Your task to perform on an android device: toggle airplane mode Image 0: 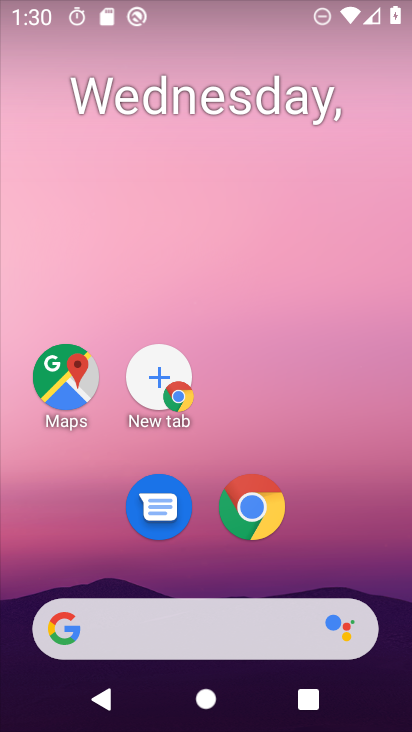
Step 0: drag from (379, 405) to (411, 150)
Your task to perform on an android device: toggle airplane mode Image 1: 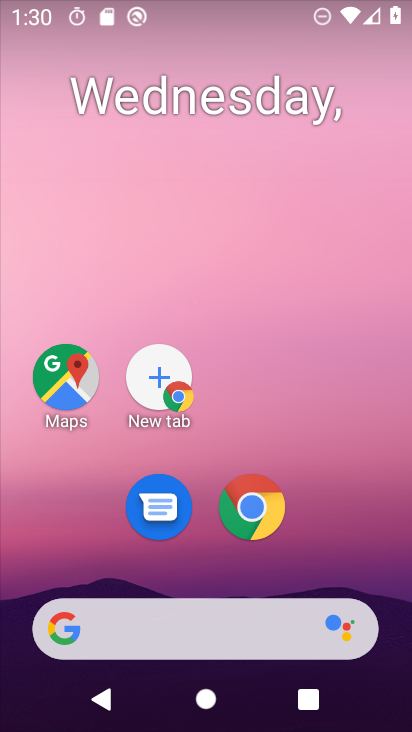
Step 1: drag from (395, 426) to (408, 217)
Your task to perform on an android device: toggle airplane mode Image 2: 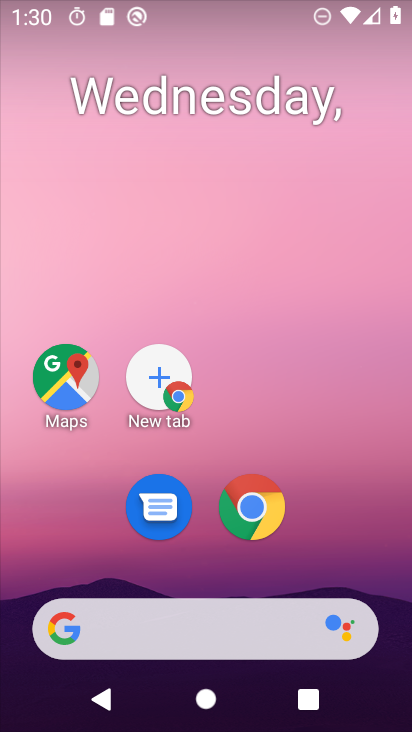
Step 2: drag from (356, 503) to (408, 139)
Your task to perform on an android device: toggle airplane mode Image 3: 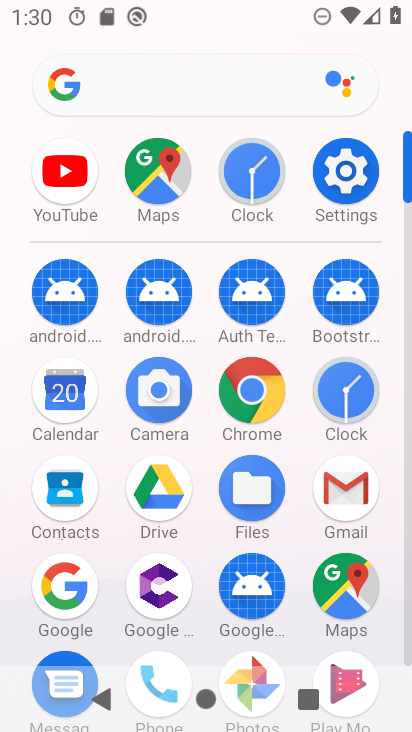
Step 3: click (353, 177)
Your task to perform on an android device: toggle airplane mode Image 4: 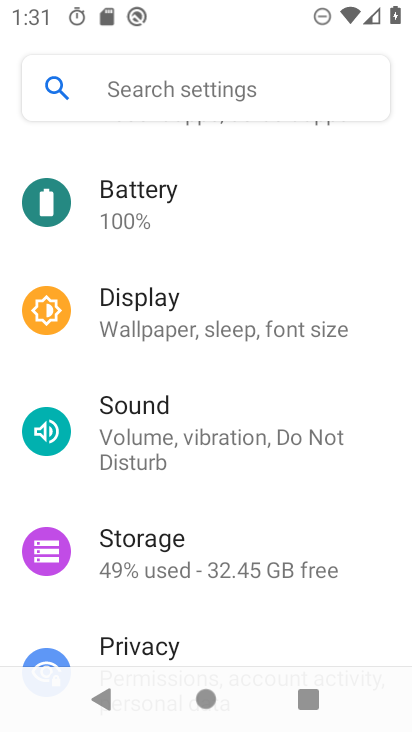
Step 4: drag from (236, 311) to (160, 555)
Your task to perform on an android device: toggle airplane mode Image 5: 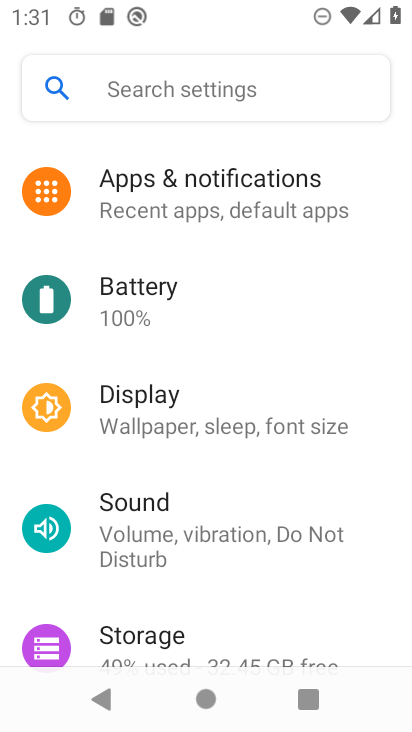
Step 5: drag from (228, 175) to (137, 543)
Your task to perform on an android device: toggle airplane mode Image 6: 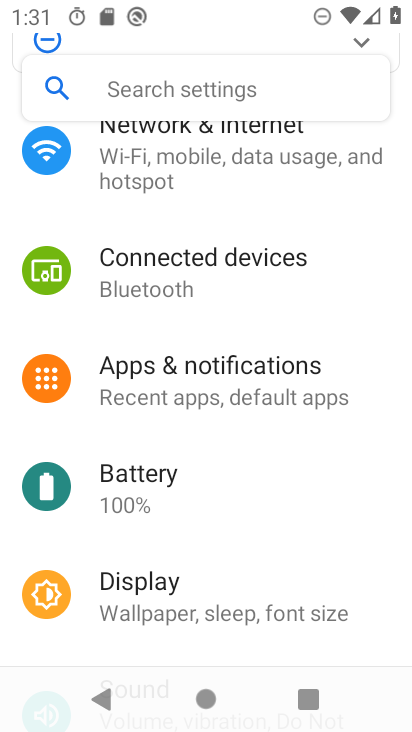
Step 6: drag from (221, 236) to (177, 574)
Your task to perform on an android device: toggle airplane mode Image 7: 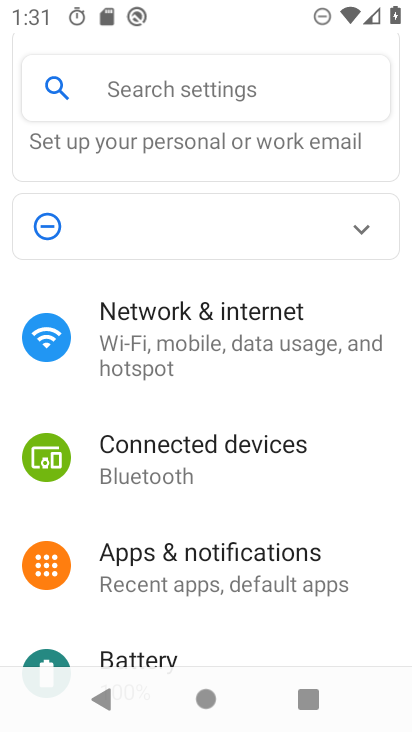
Step 7: click (235, 325)
Your task to perform on an android device: toggle airplane mode Image 8: 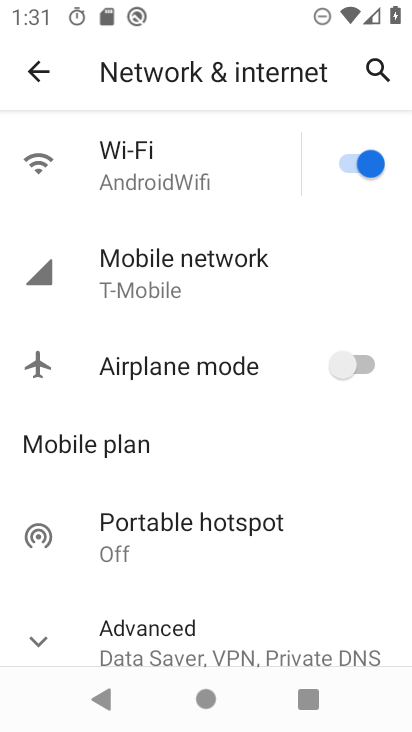
Step 8: click (354, 357)
Your task to perform on an android device: toggle airplane mode Image 9: 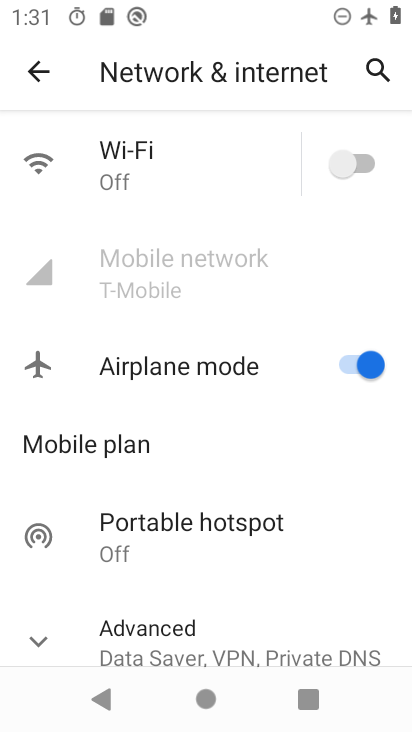
Step 9: task complete